Your task to perform on an android device: Turn off the flashlight Image 0: 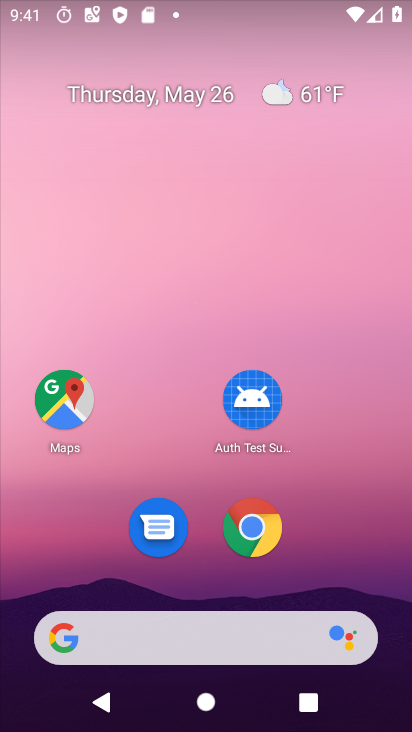
Step 0: drag from (359, 475) to (342, 3)
Your task to perform on an android device: Turn off the flashlight Image 1: 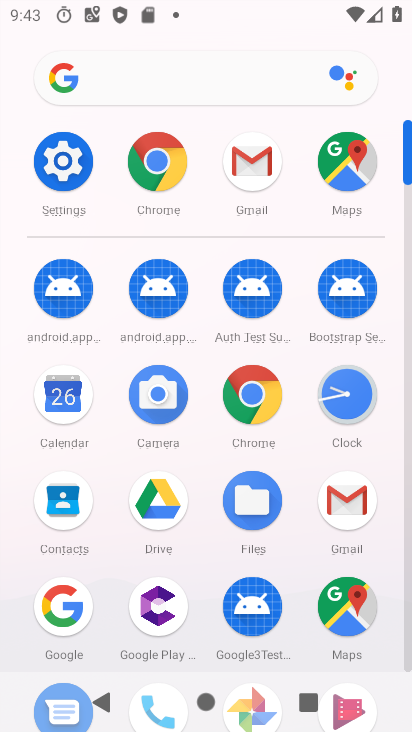
Step 1: click (35, 176)
Your task to perform on an android device: Turn off the flashlight Image 2: 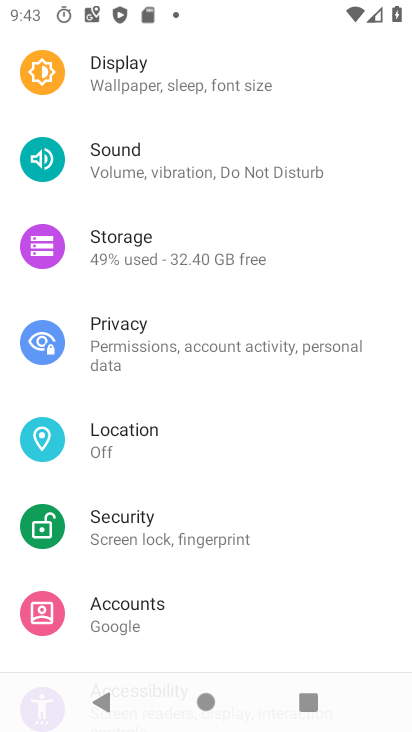
Step 2: task complete